Your task to perform on an android device: Search for sushi restaurants on Maps Image 0: 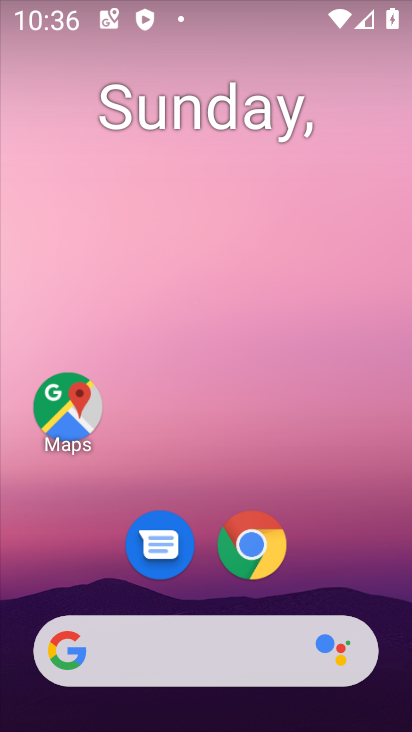
Step 0: click (83, 419)
Your task to perform on an android device: Search for sushi restaurants on Maps Image 1: 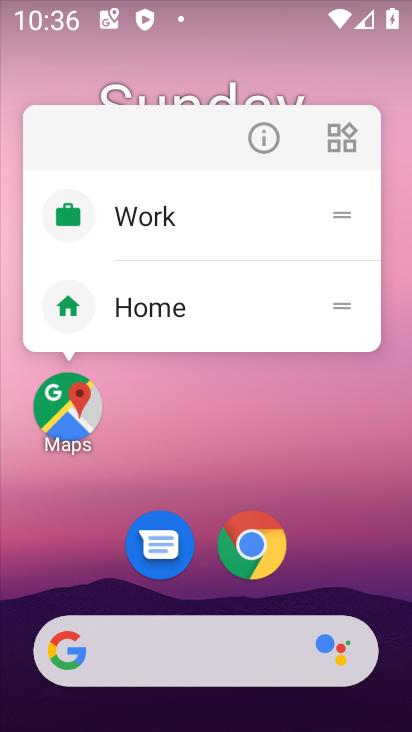
Step 1: click (78, 429)
Your task to perform on an android device: Search for sushi restaurants on Maps Image 2: 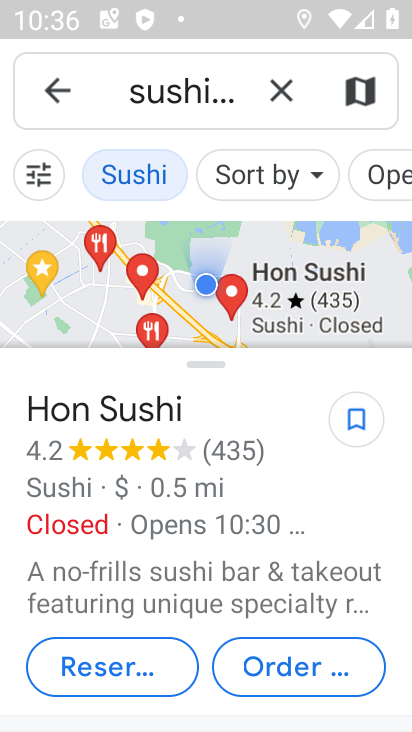
Step 2: task complete